Your task to perform on an android device: Search for sushi restaurants on Maps Image 0: 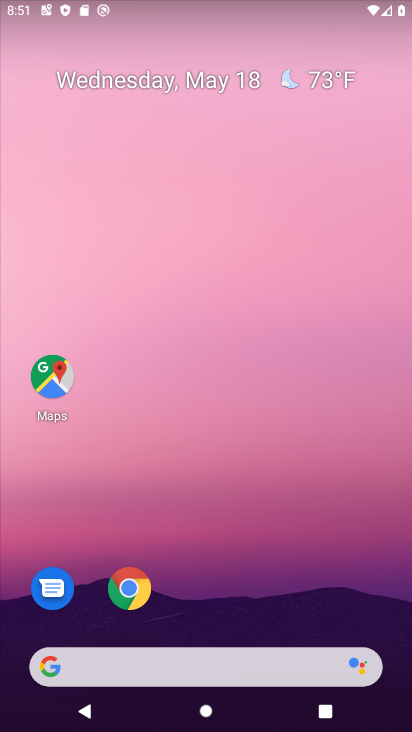
Step 0: drag from (250, 555) to (256, 278)
Your task to perform on an android device: Search for sushi restaurants on Maps Image 1: 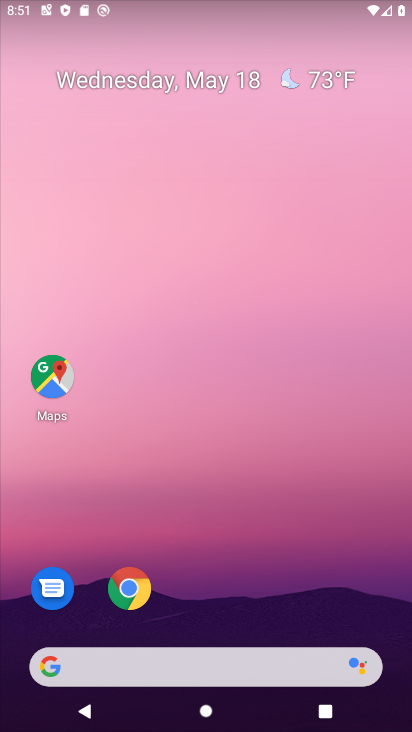
Step 1: drag from (232, 586) to (272, 239)
Your task to perform on an android device: Search for sushi restaurants on Maps Image 2: 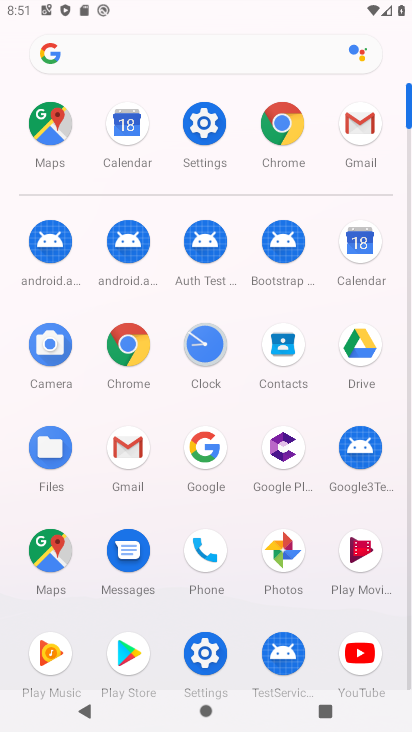
Step 2: click (51, 554)
Your task to perform on an android device: Search for sushi restaurants on Maps Image 3: 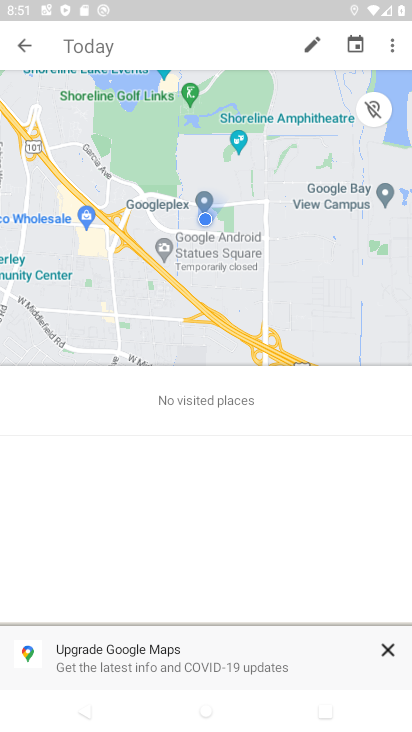
Step 3: click (30, 57)
Your task to perform on an android device: Search for sushi restaurants on Maps Image 4: 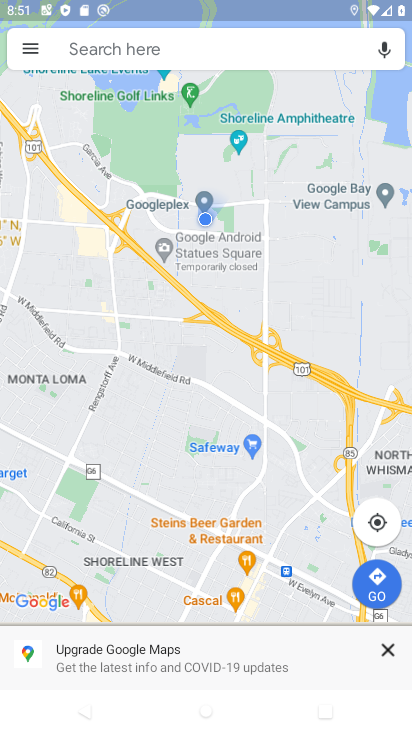
Step 4: click (191, 48)
Your task to perform on an android device: Search for sushi restaurants on Maps Image 5: 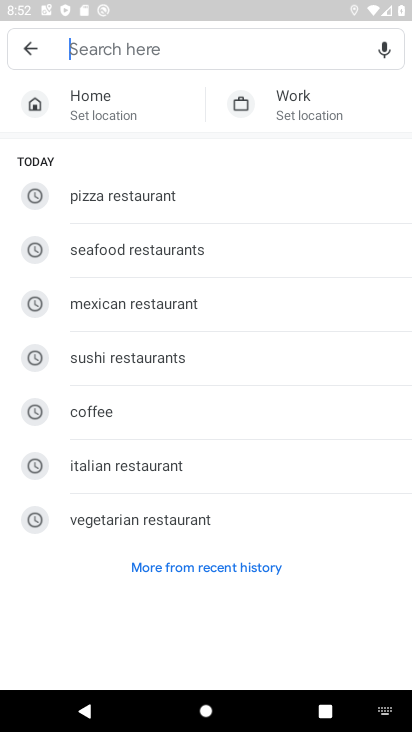
Step 5: type "sushi restaurants "
Your task to perform on an android device: Search for sushi restaurants on Maps Image 6: 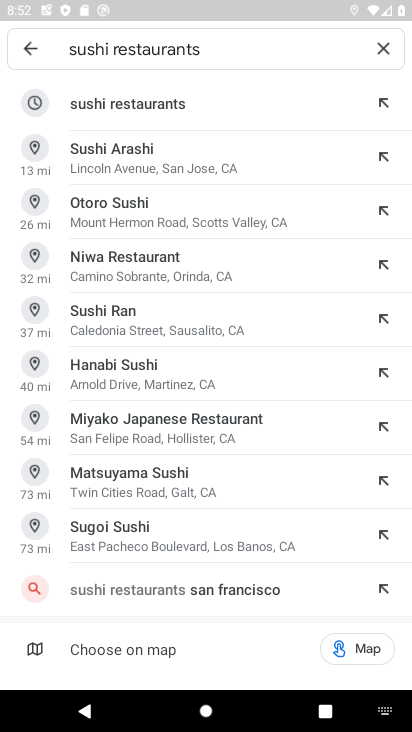
Step 6: click (200, 116)
Your task to perform on an android device: Search for sushi restaurants on Maps Image 7: 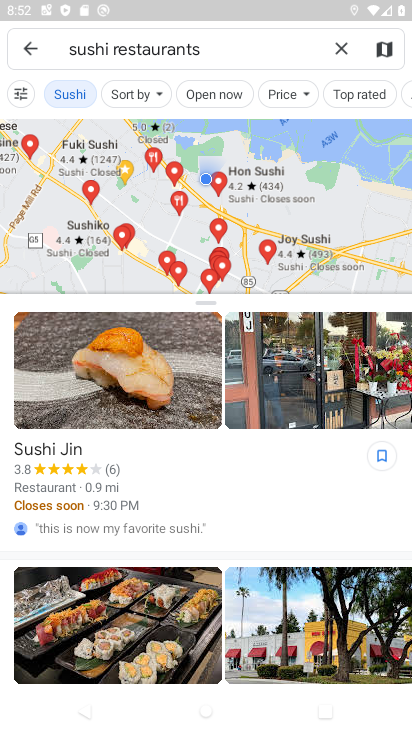
Step 7: task complete